Your task to perform on an android device: open app "PUBG MOBILE" (install if not already installed) Image 0: 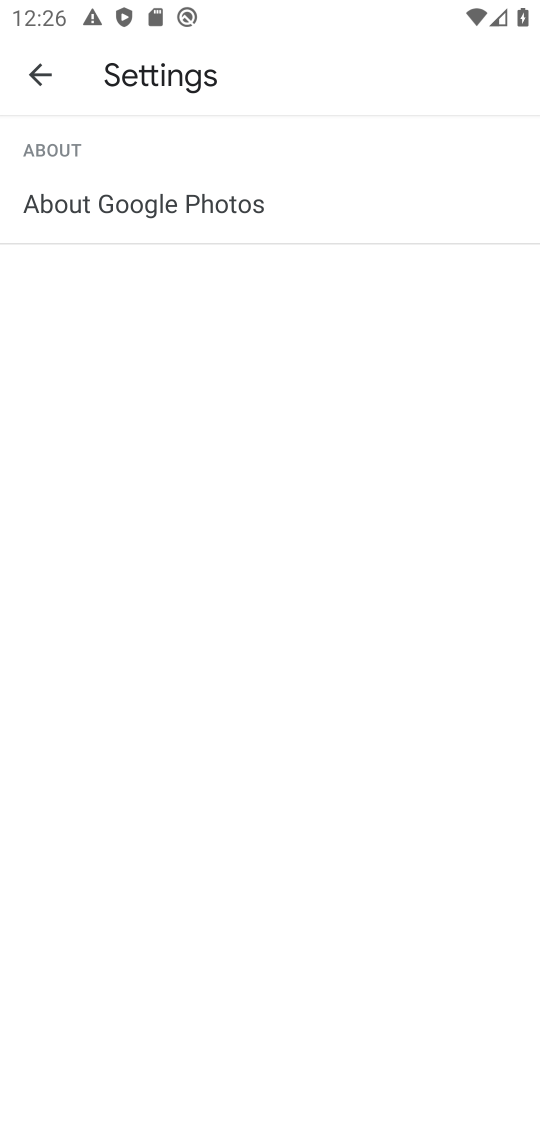
Step 0: press home button
Your task to perform on an android device: open app "PUBG MOBILE" (install if not already installed) Image 1: 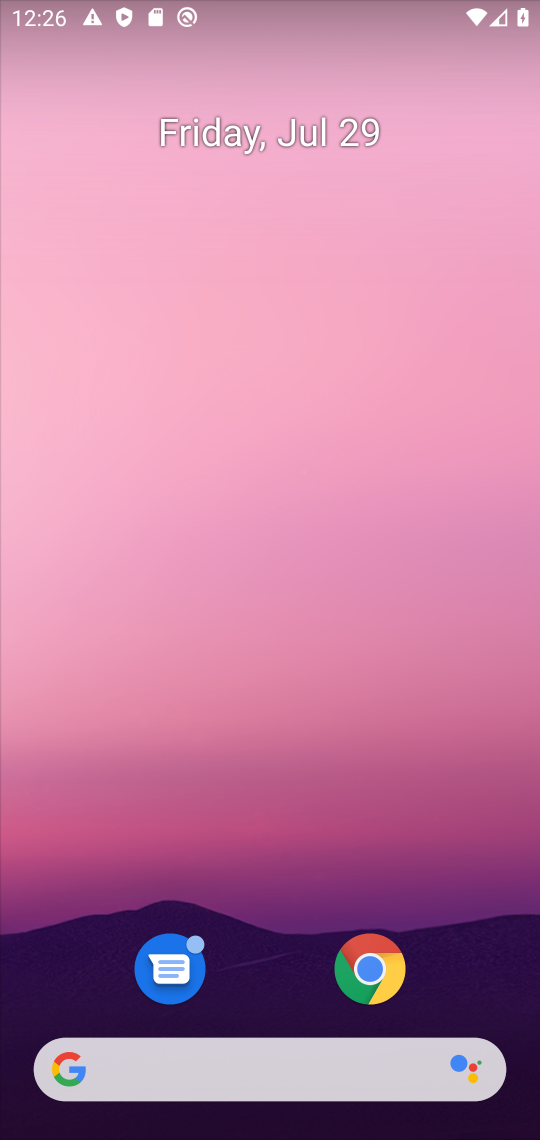
Step 1: drag from (319, 1094) to (504, 73)
Your task to perform on an android device: open app "PUBG MOBILE" (install if not already installed) Image 2: 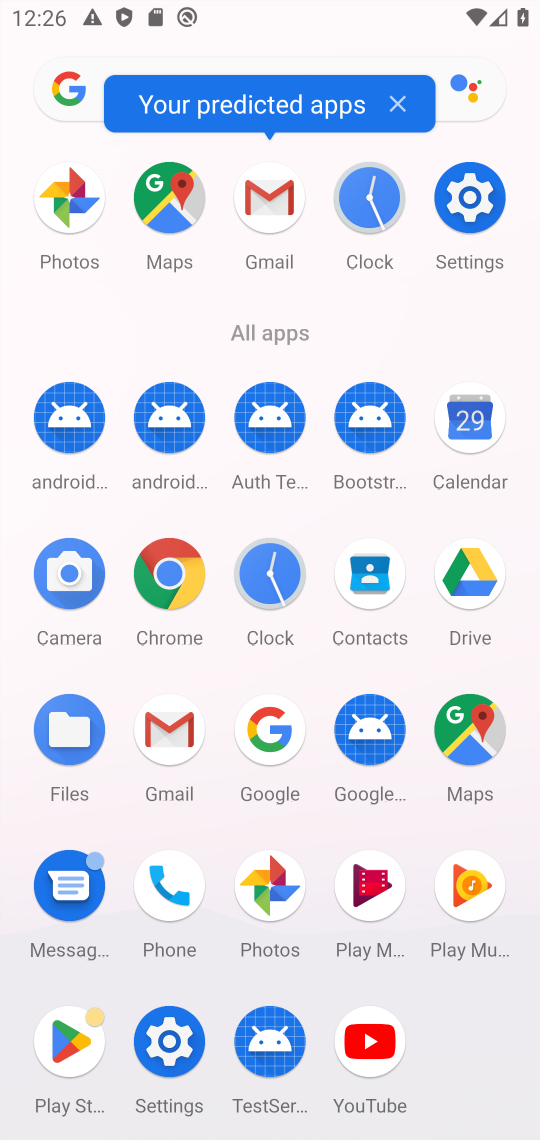
Step 2: drag from (71, 1058) to (501, 988)
Your task to perform on an android device: open app "PUBG MOBILE" (install if not already installed) Image 3: 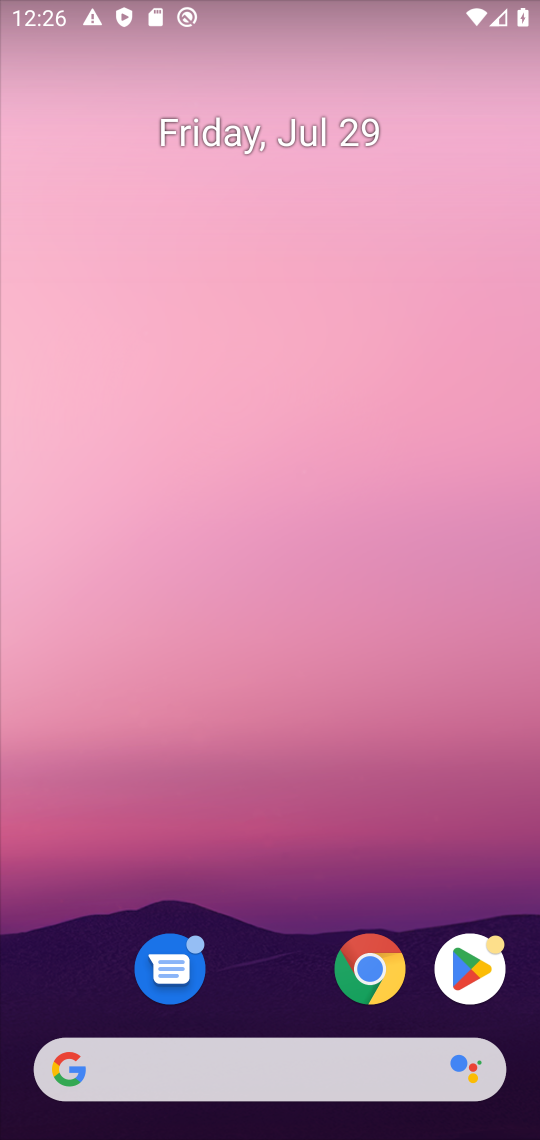
Step 3: click (475, 954)
Your task to perform on an android device: open app "PUBG MOBILE" (install if not already installed) Image 4: 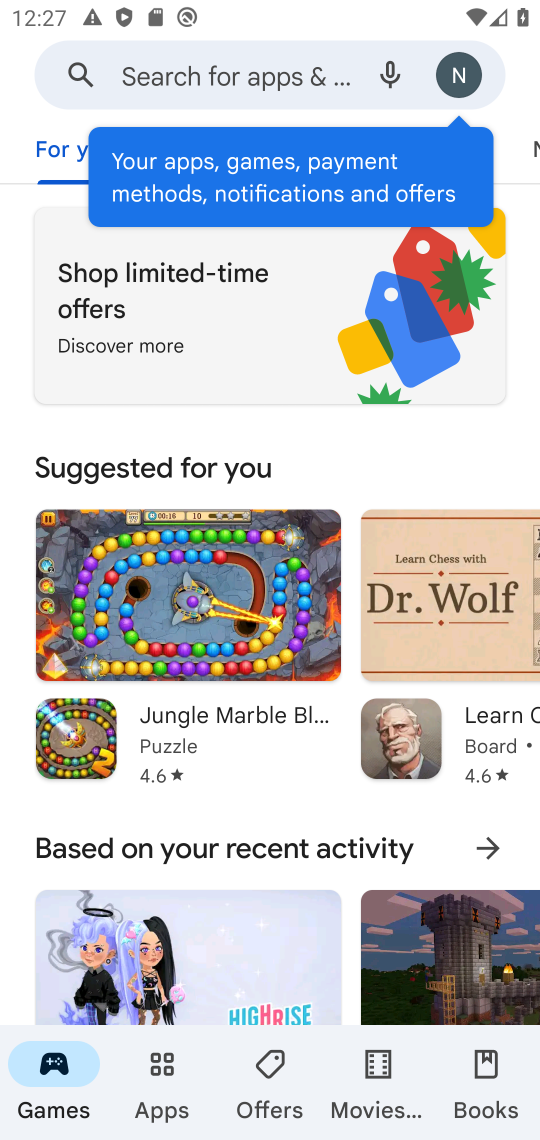
Step 4: click (230, 91)
Your task to perform on an android device: open app "PUBG MOBILE" (install if not already installed) Image 5: 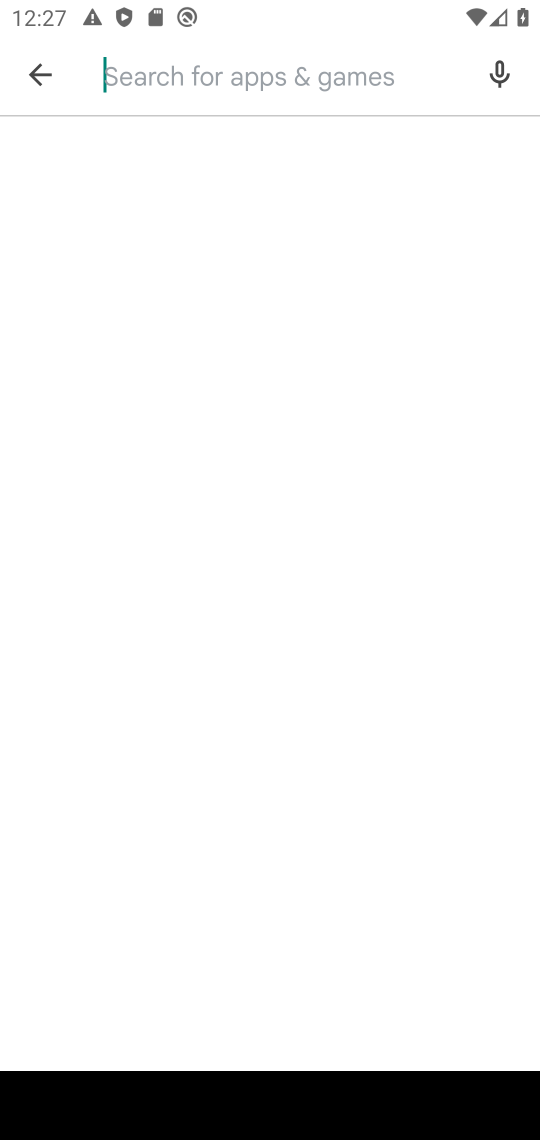
Step 5: drag from (513, 1124) to (533, 1072)
Your task to perform on an android device: open app "PUBG MOBILE" (install if not already installed) Image 6: 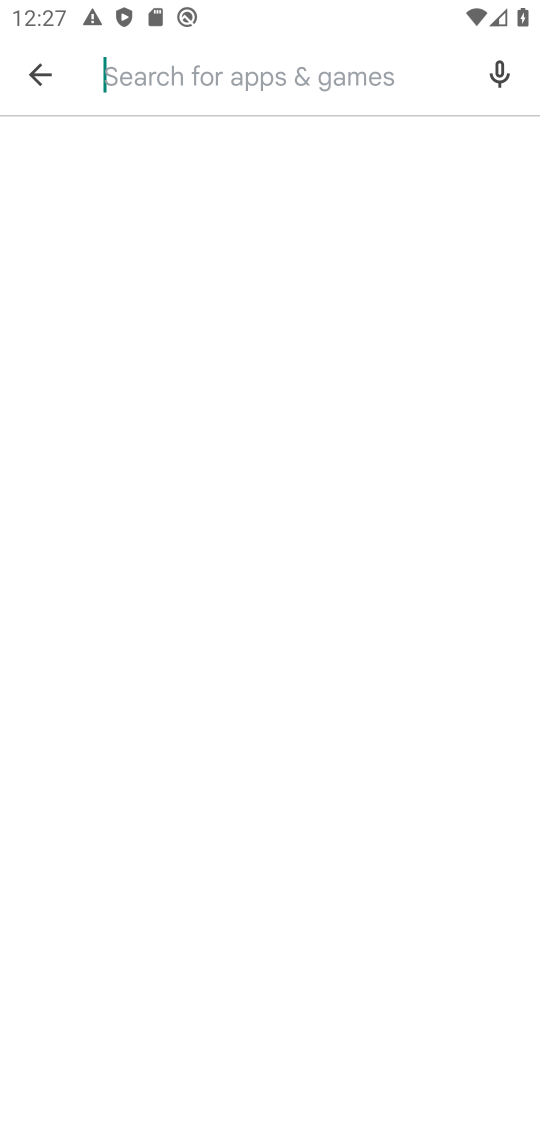
Step 6: type "pubg mobile"
Your task to perform on an android device: open app "PUBG MOBILE" (install if not already installed) Image 7: 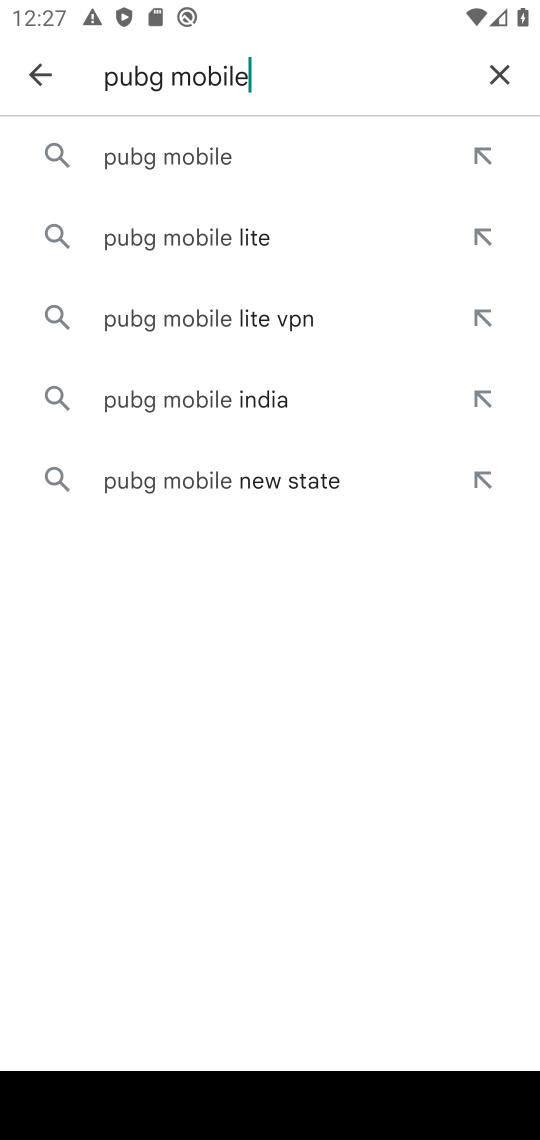
Step 7: click (290, 172)
Your task to perform on an android device: open app "PUBG MOBILE" (install if not already installed) Image 8: 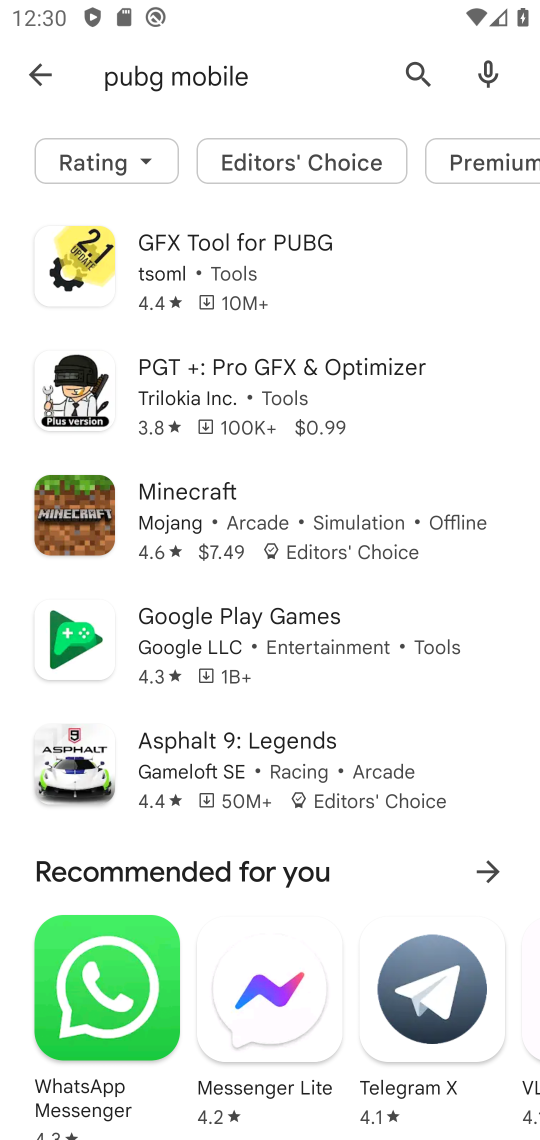
Step 8: task complete